Your task to perform on an android device: check google app version Image 0: 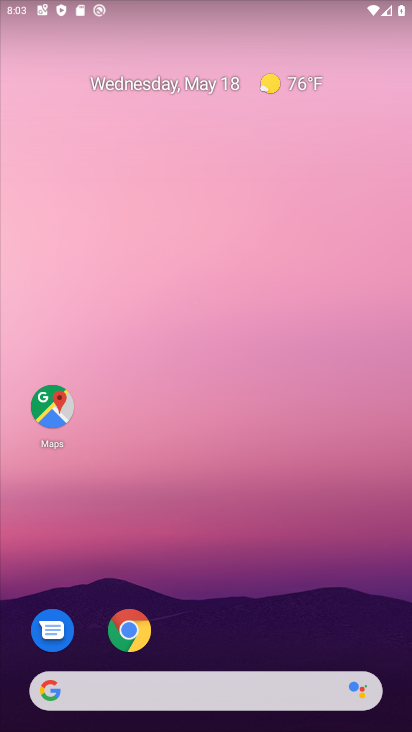
Step 0: drag from (226, 699) to (288, 96)
Your task to perform on an android device: check google app version Image 1: 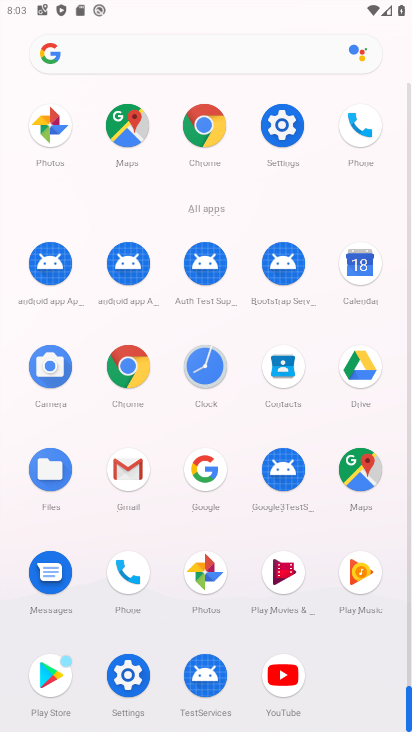
Step 1: click (207, 474)
Your task to perform on an android device: check google app version Image 2: 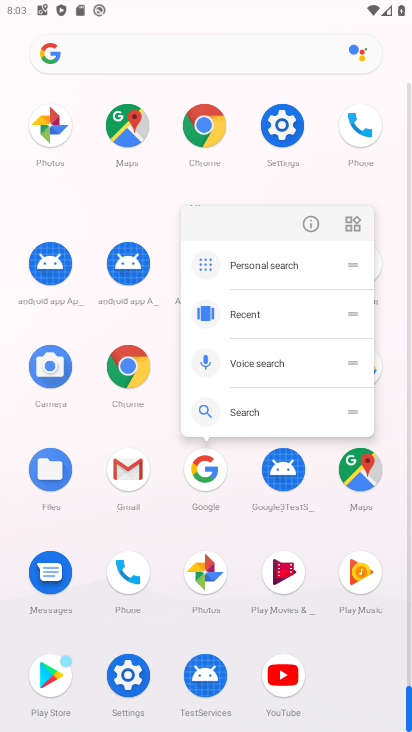
Step 2: click (315, 223)
Your task to perform on an android device: check google app version Image 3: 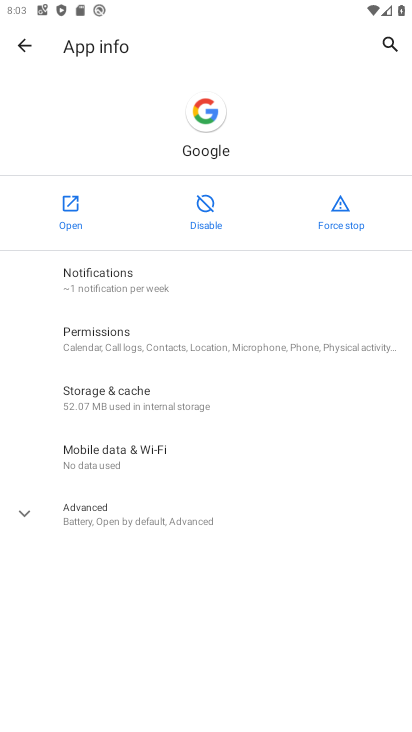
Step 3: click (173, 520)
Your task to perform on an android device: check google app version Image 4: 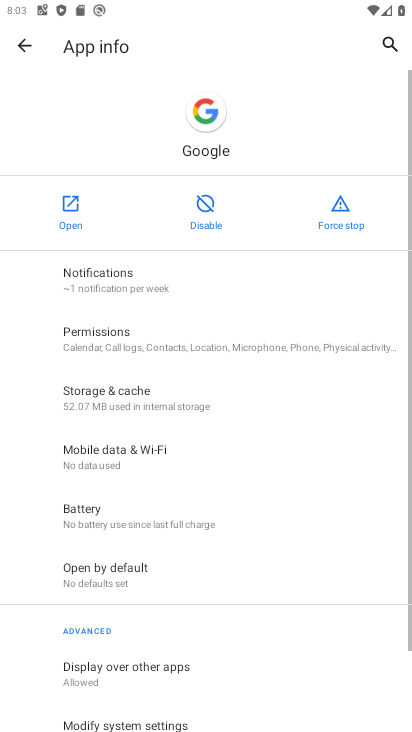
Step 4: task complete